Your task to perform on an android device: turn notification dots on Image 0: 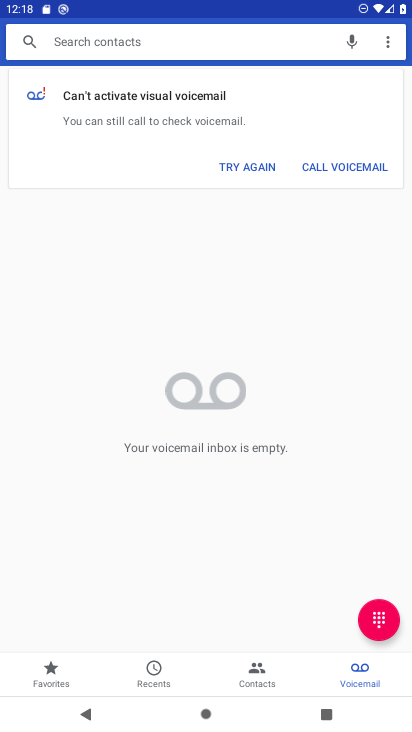
Step 0: drag from (225, 726) to (225, 474)
Your task to perform on an android device: turn notification dots on Image 1: 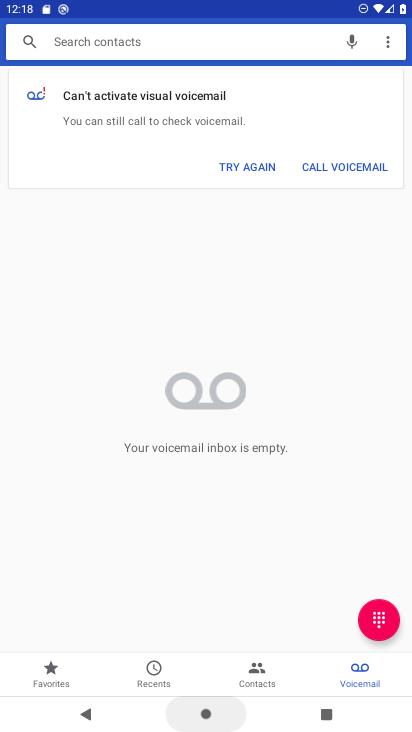
Step 1: drag from (225, 254) to (226, 169)
Your task to perform on an android device: turn notification dots on Image 2: 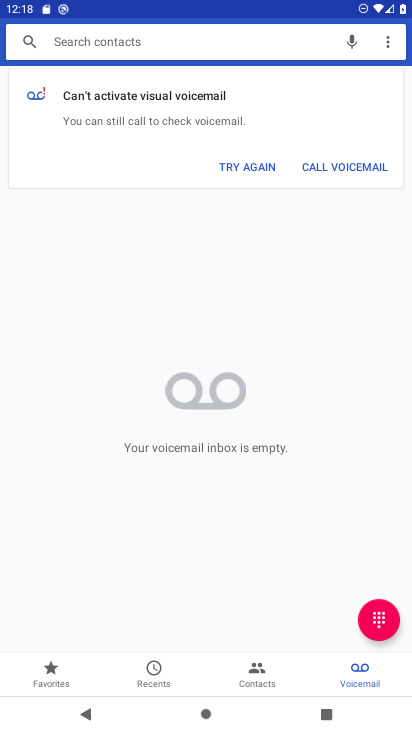
Step 2: press home button
Your task to perform on an android device: turn notification dots on Image 3: 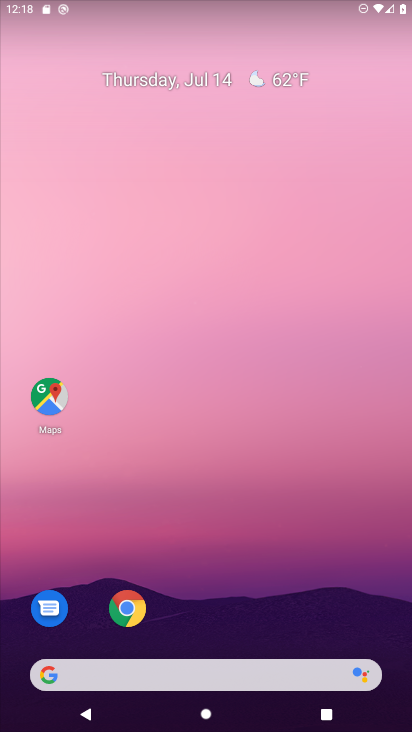
Step 3: drag from (226, 720) to (245, 61)
Your task to perform on an android device: turn notification dots on Image 4: 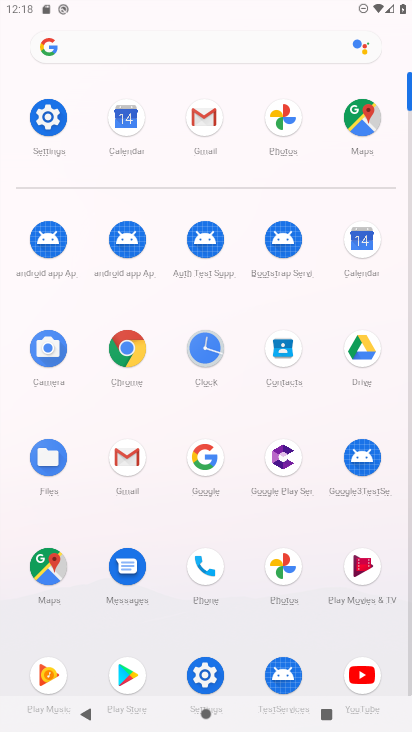
Step 4: click (47, 121)
Your task to perform on an android device: turn notification dots on Image 5: 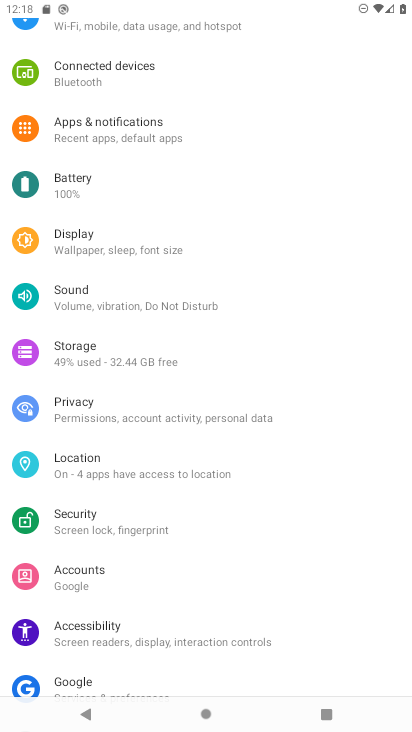
Step 5: click (118, 138)
Your task to perform on an android device: turn notification dots on Image 6: 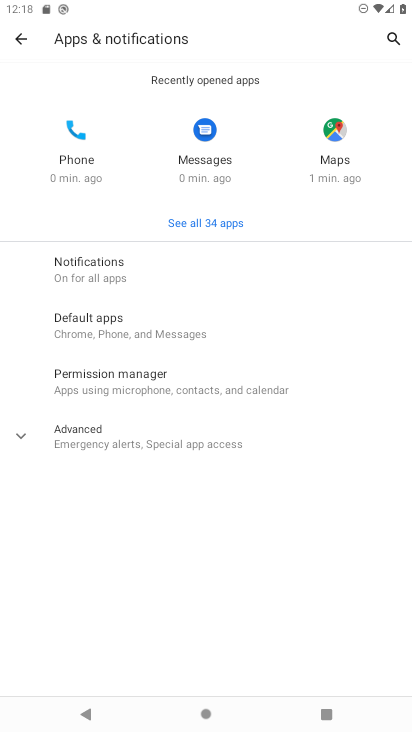
Step 6: click (81, 266)
Your task to perform on an android device: turn notification dots on Image 7: 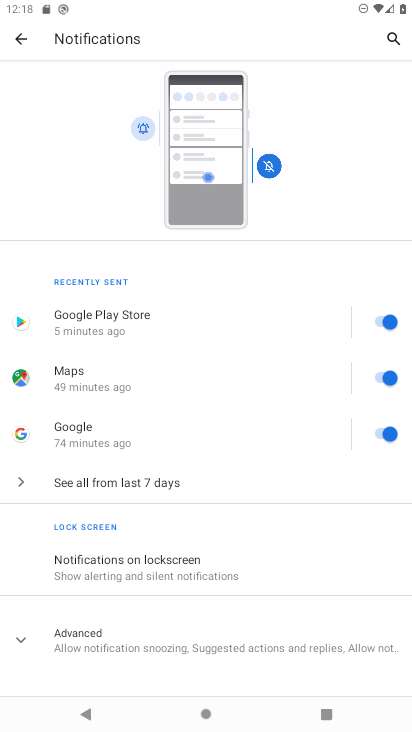
Step 7: drag from (267, 647) to (236, 352)
Your task to perform on an android device: turn notification dots on Image 8: 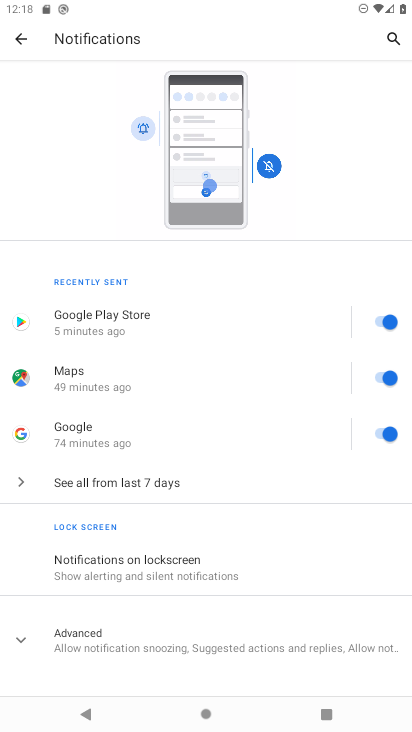
Step 8: click (131, 636)
Your task to perform on an android device: turn notification dots on Image 9: 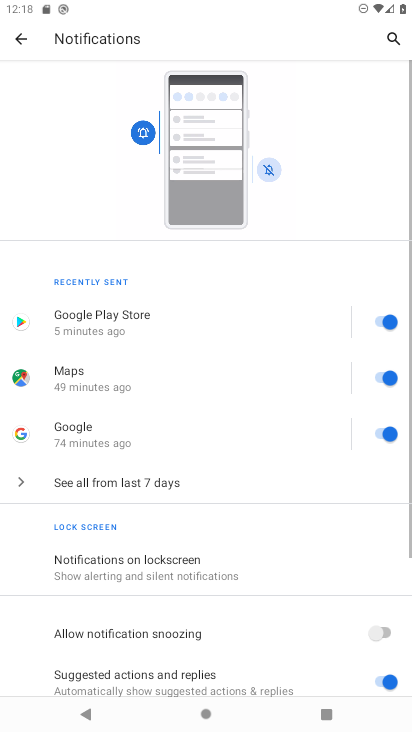
Step 9: drag from (226, 655) to (213, 535)
Your task to perform on an android device: turn notification dots on Image 10: 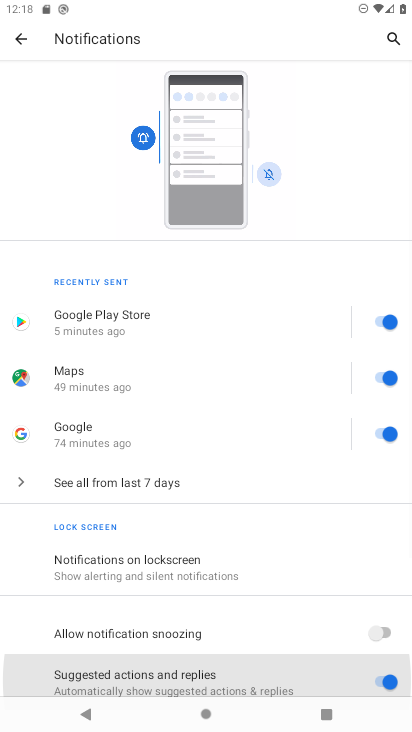
Step 10: click (213, 394)
Your task to perform on an android device: turn notification dots on Image 11: 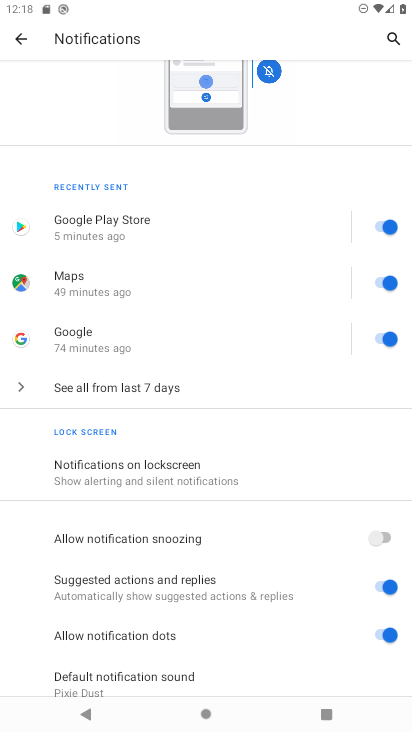
Step 11: task complete